Your task to perform on an android device: Do I have any events tomorrow? Image 0: 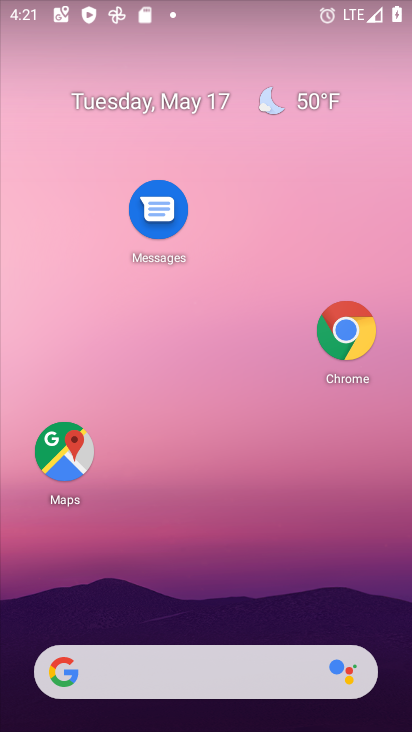
Step 0: drag from (256, 579) to (175, 163)
Your task to perform on an android device: Do I have any events tomorrow? Image 1: 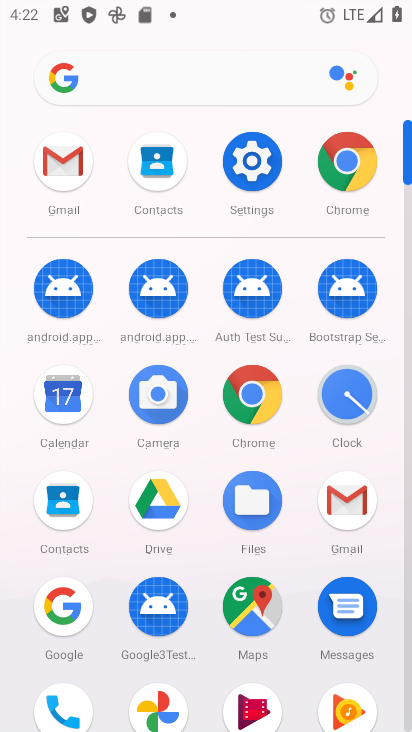
Step 1: click (47, 512)
Your task to perform on an android device: Do I have any events tomorrow? Image 2: 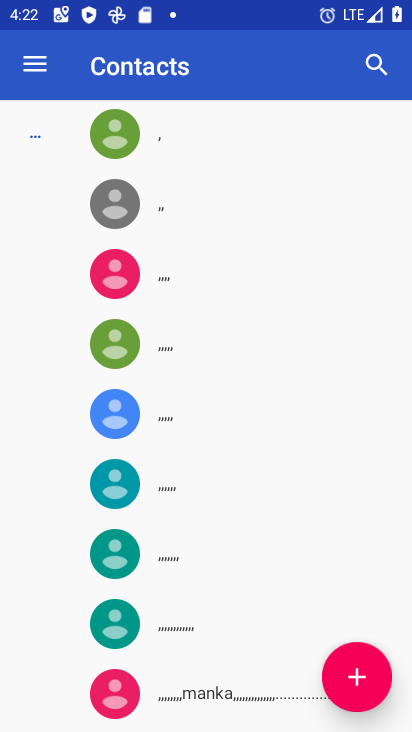
Step 2: click (44, 430)
Your task to perform on an android device: Do I have any events tomorrow? Image 3: 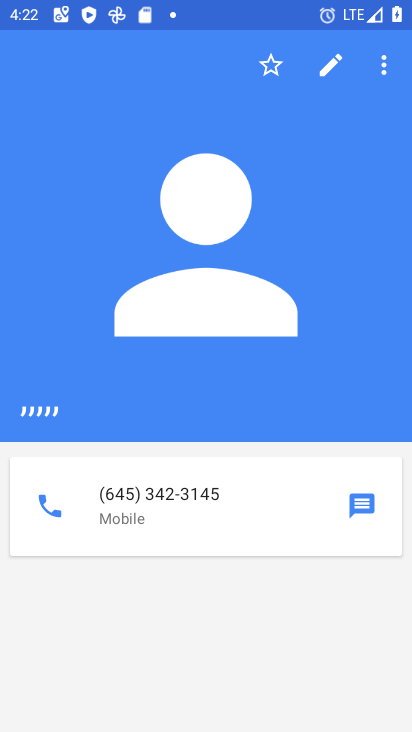
Step 3: press home button
Your task to perform on an android device: Do I have any events tomorrow? Image 4: 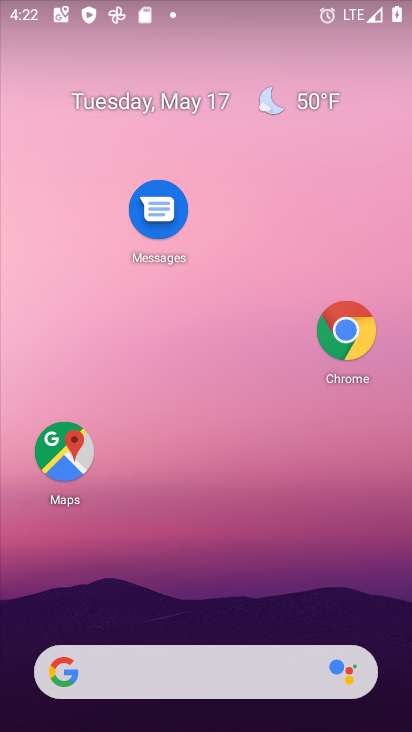
Step 4: drag from (265, 559) to (262, 322)
Your task to perform on an android device: Do I have any events tomorrow? Image 5: 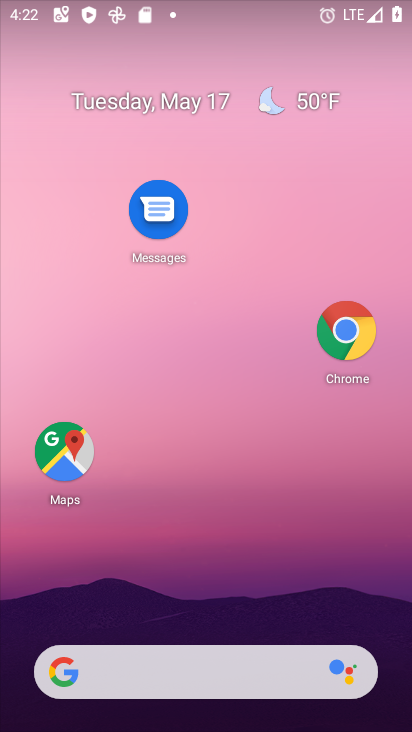
Step 5: drag from (194, 545) to (190, 11)
Your task to perform on an android device: Do I have any events tomorrow? Image 6: 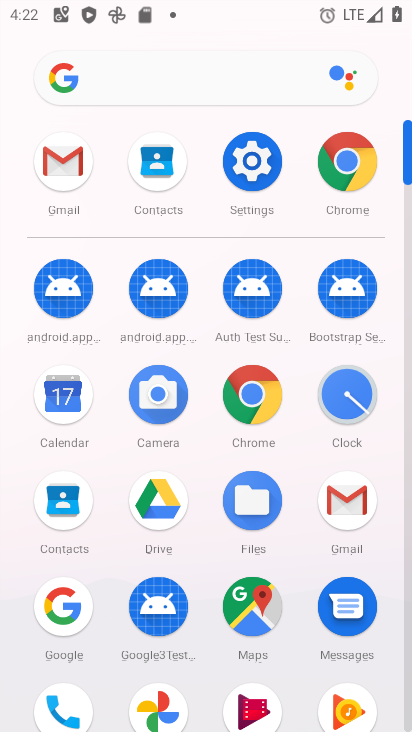
Step 6: click (56, 434)
Your task to perform on an android device: Do I have any events tomorrow? Image 7: 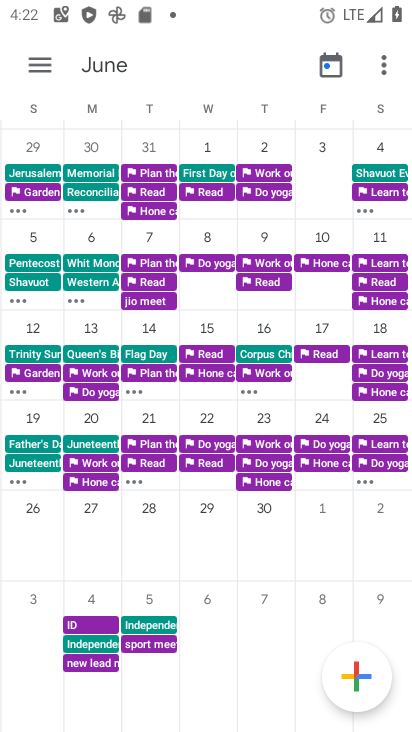
Step 7: task complete